Your task to perform on an android device: What is the price of a 12' ladder at Lowes? Image 0: 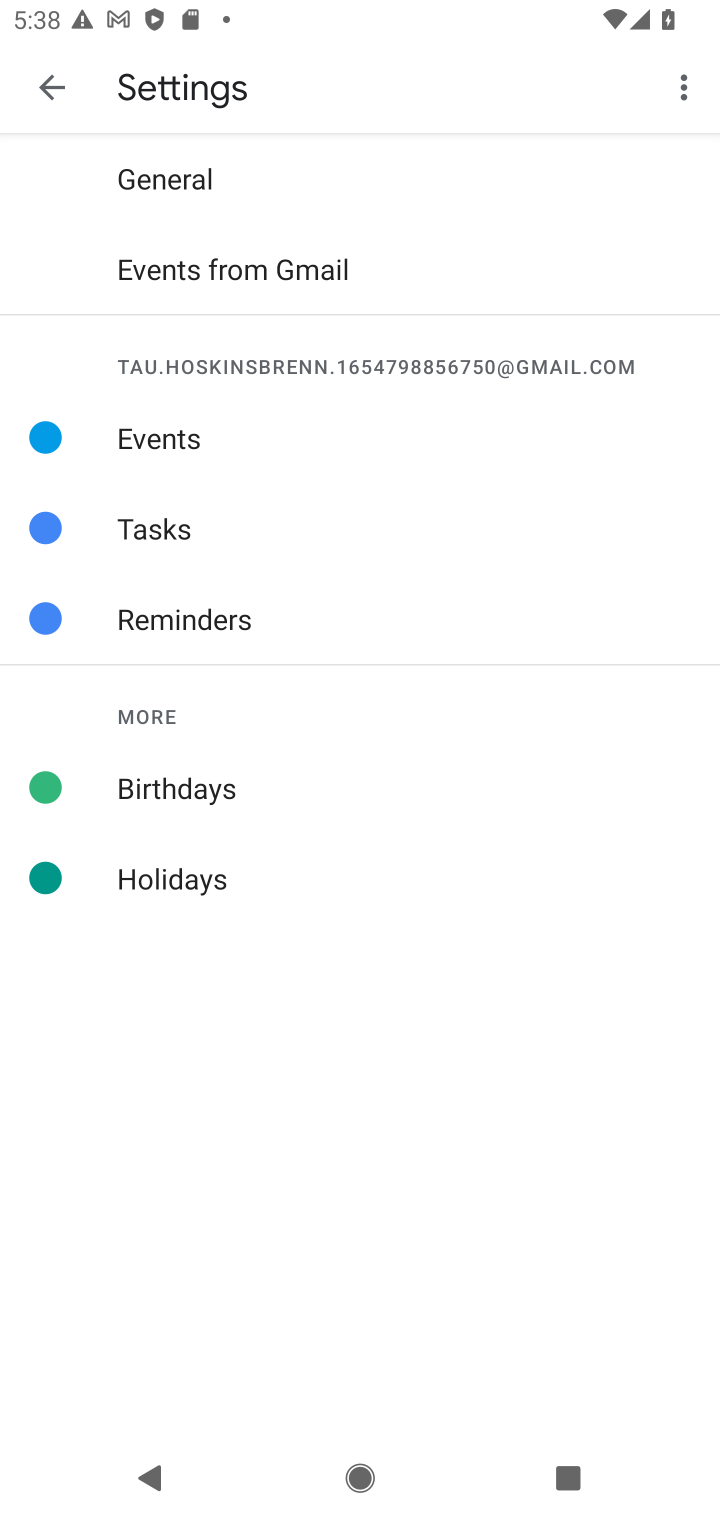
Step 0: press home button
Your task to perform on an android device: What is the price of a 12' ladder at Lowes? Image 1: 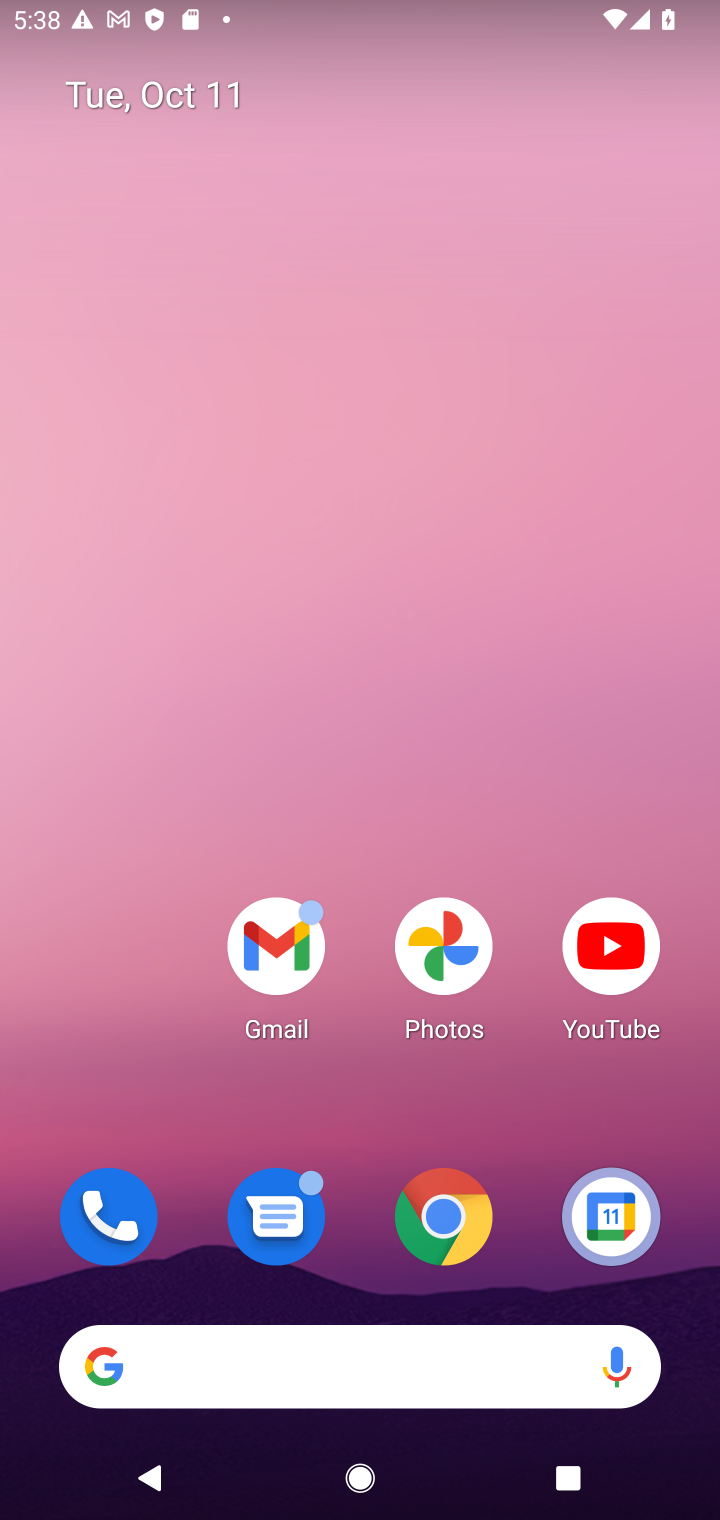
Step 1: click (444, 1220)
Your task to perform on an android device: What is the price of a 12' ladder at Lowes? Image 2: 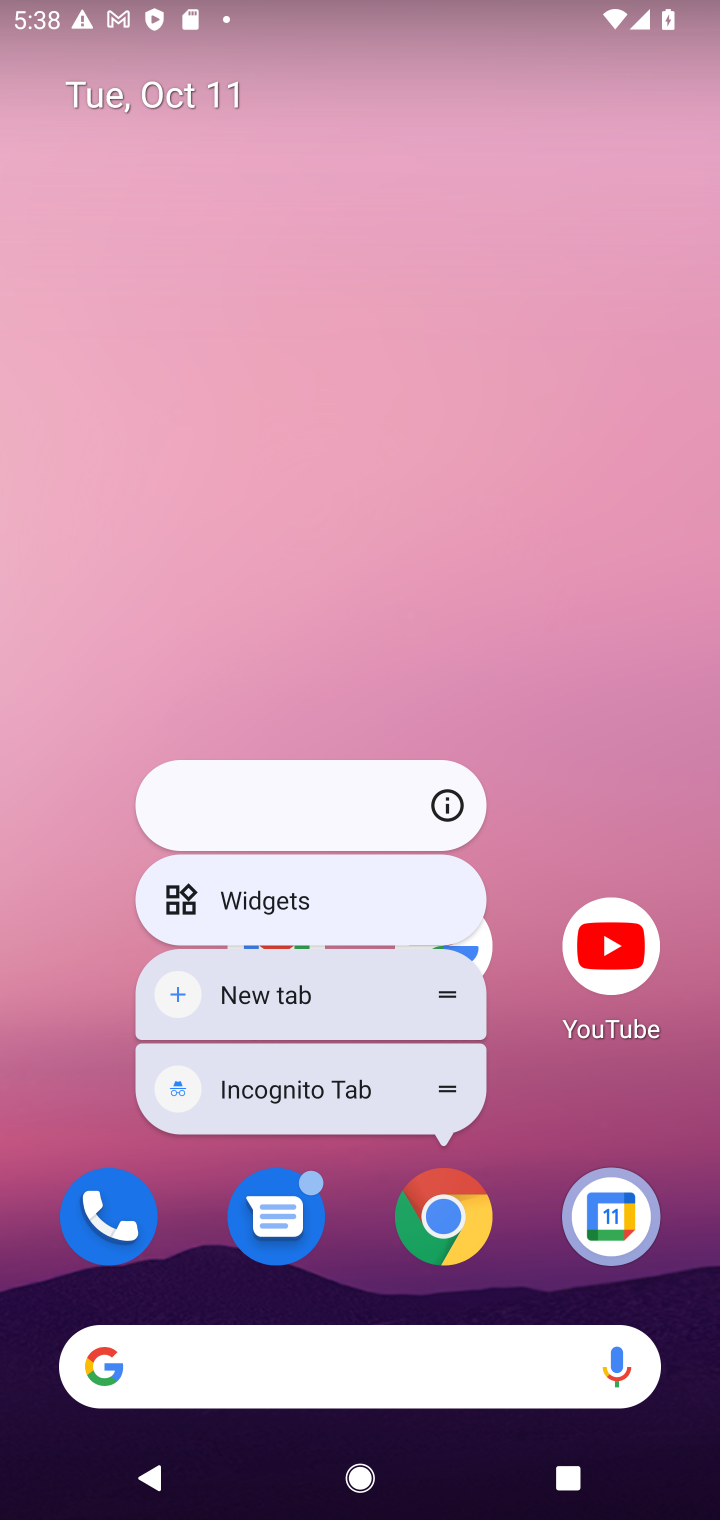
Step 2: click (444, 1220)
Your task to perform on an android device: What is the price of a 12' ladder at Lowes? Image 3: 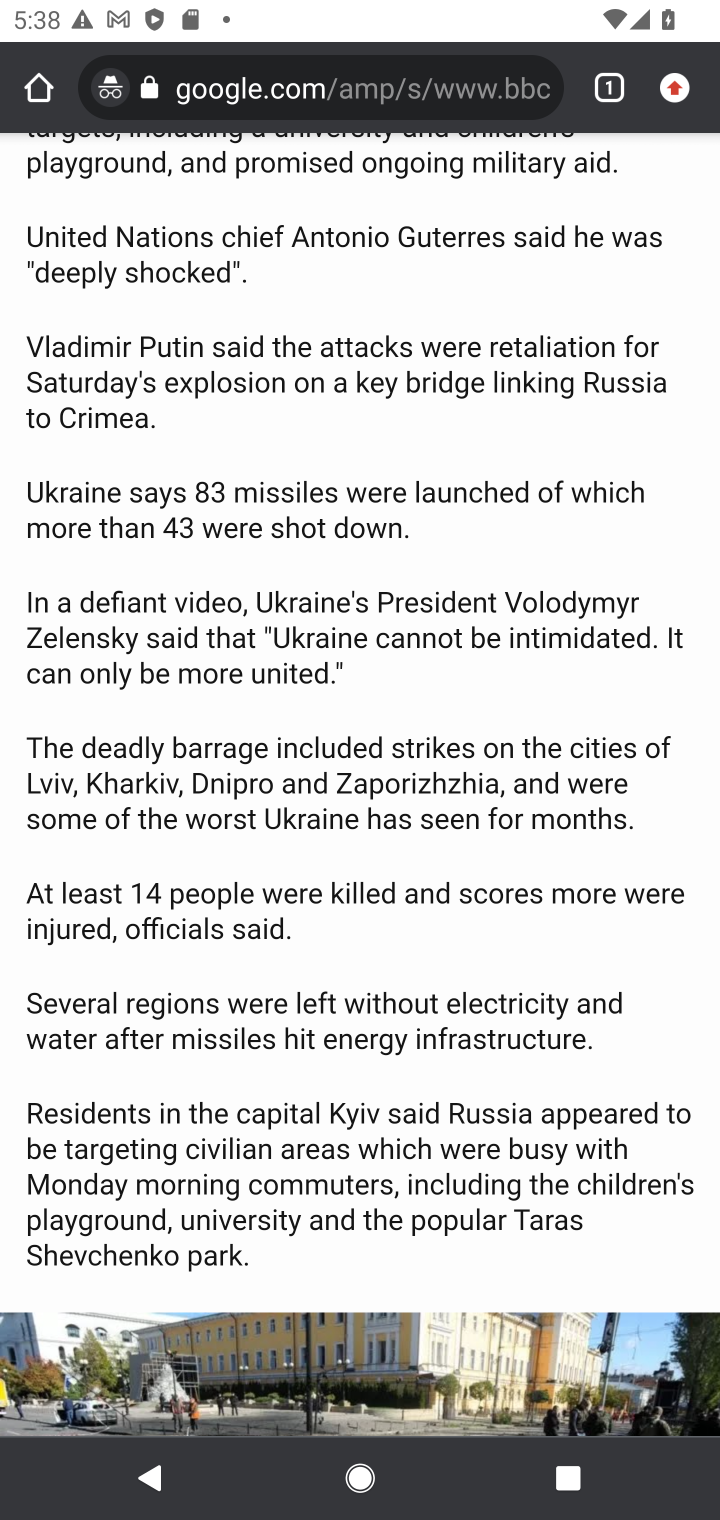
Step 3: click (440, 95)
Your task to perform on an android device: What is the price of a 12' ladder at Lowes? Image 4: 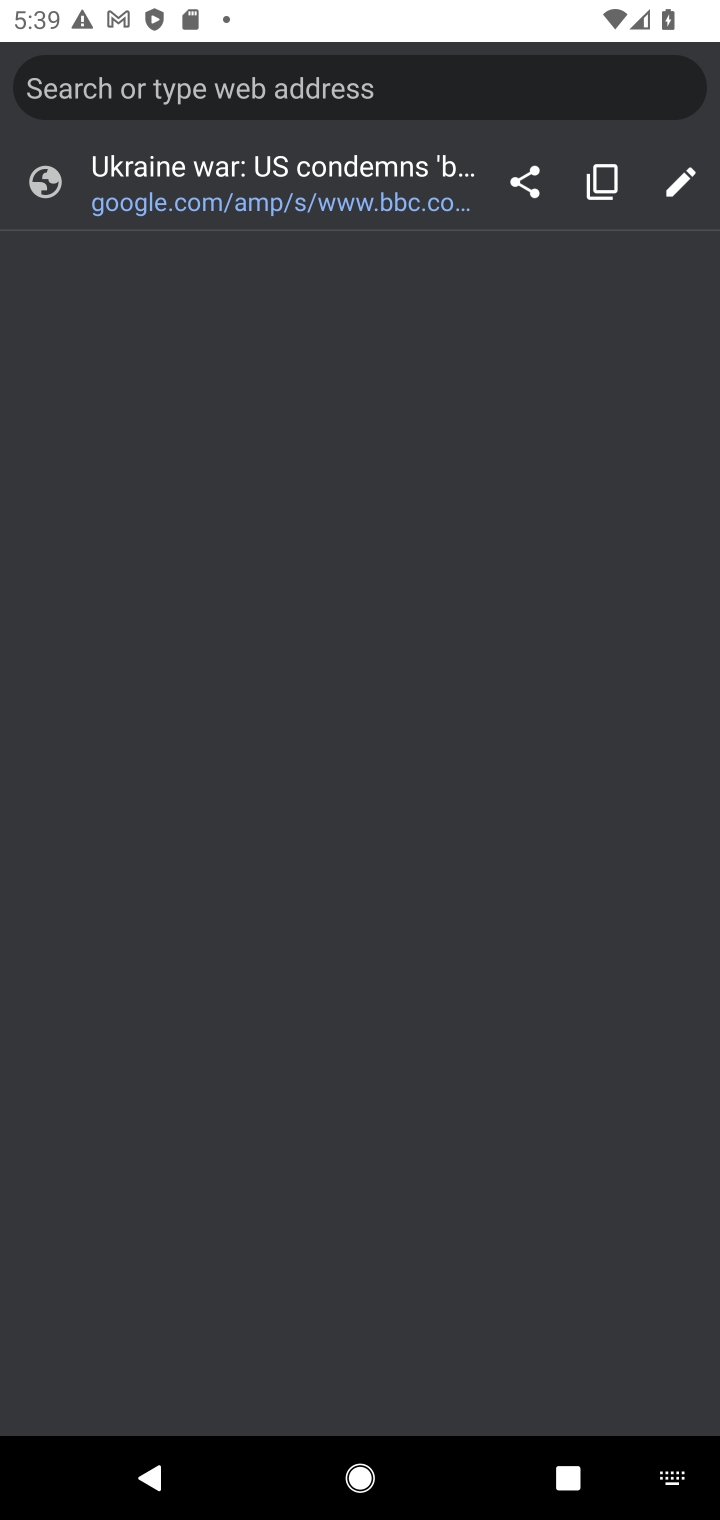
Step 4: type "What is the price of a 12' ladder at Lowes?"
Your task to perform on an android device: What is the price of a 12' ladder at Lowes? Image 5: 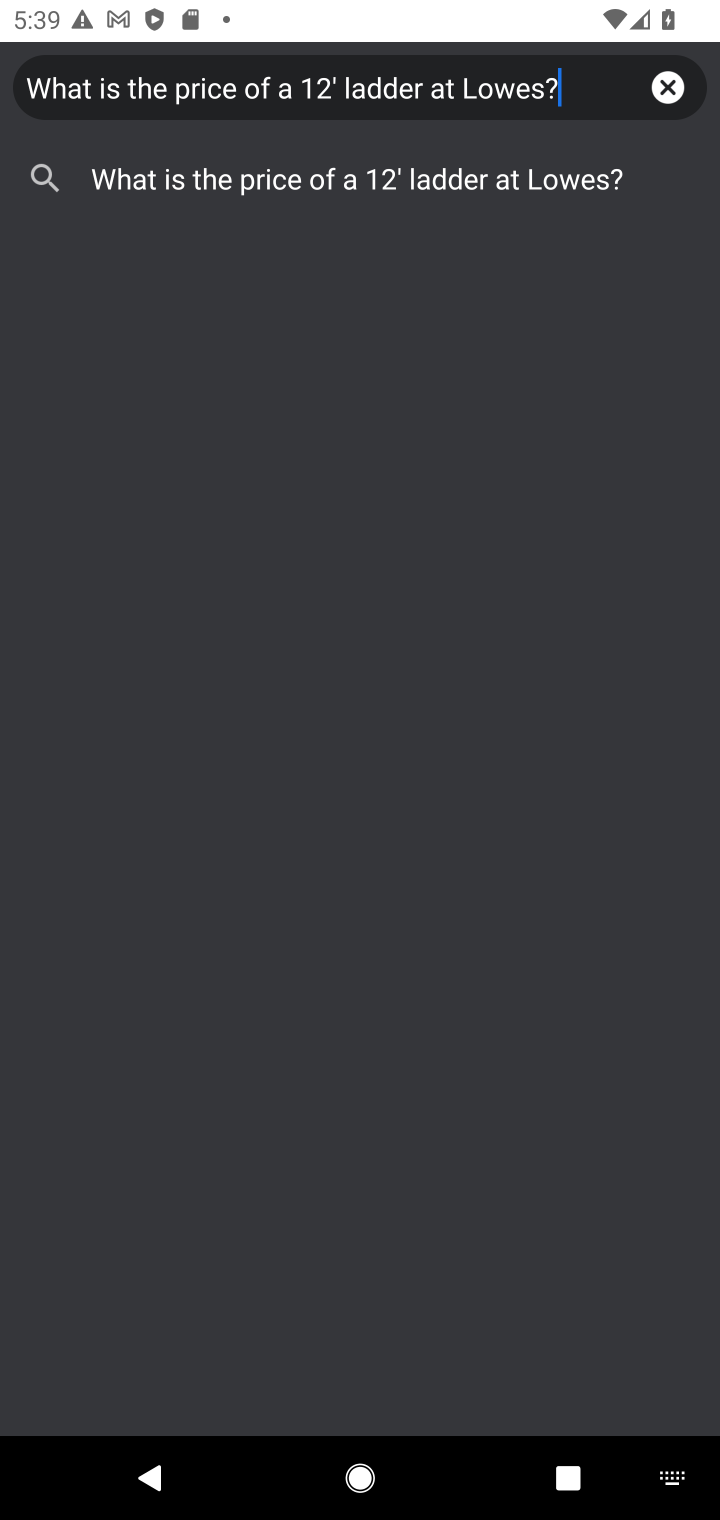
Step 5: click (350, 180)
Your task to perform on an android device: What is the price of a 12' ladder at Lowes? Image 6: 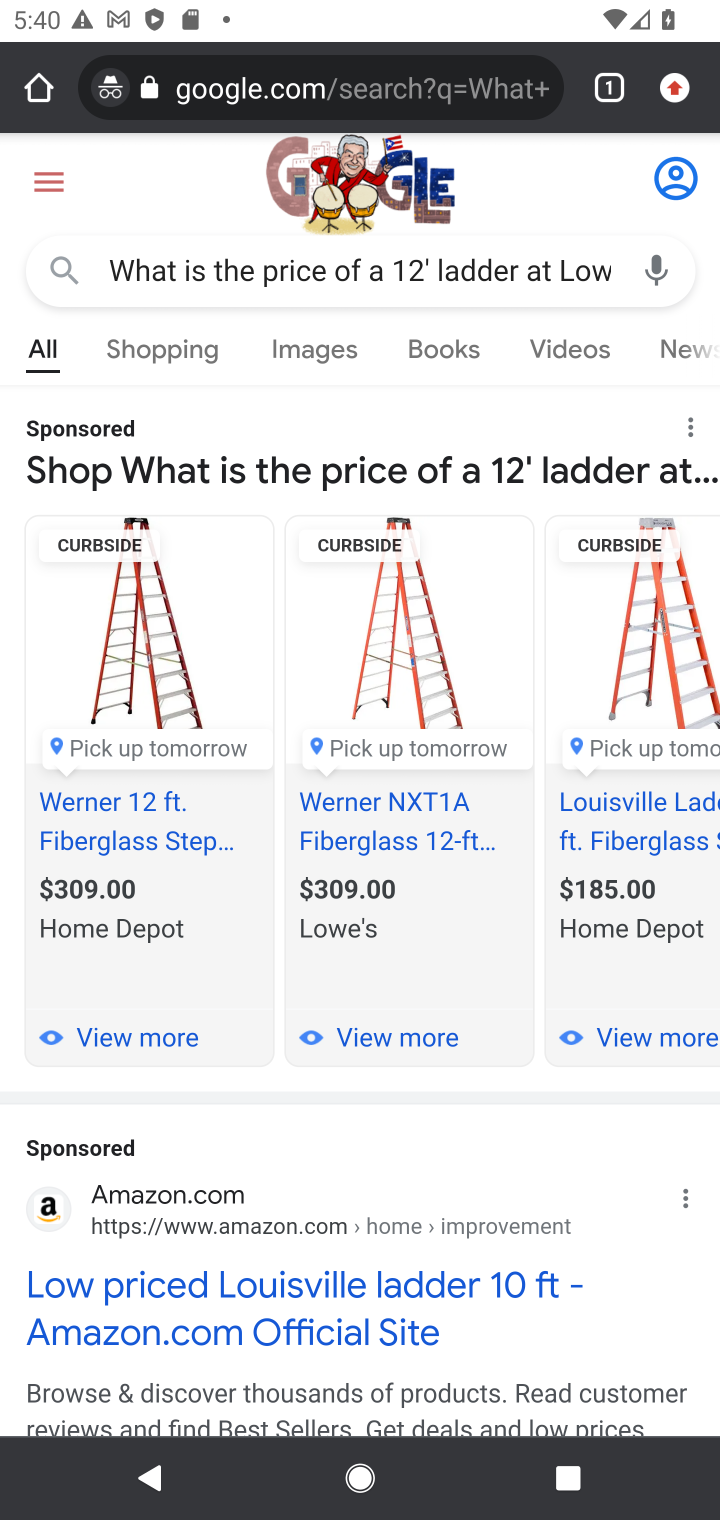
Step 6: task complete